Your task to perform on an android device: turn on sleep mode Image 0: 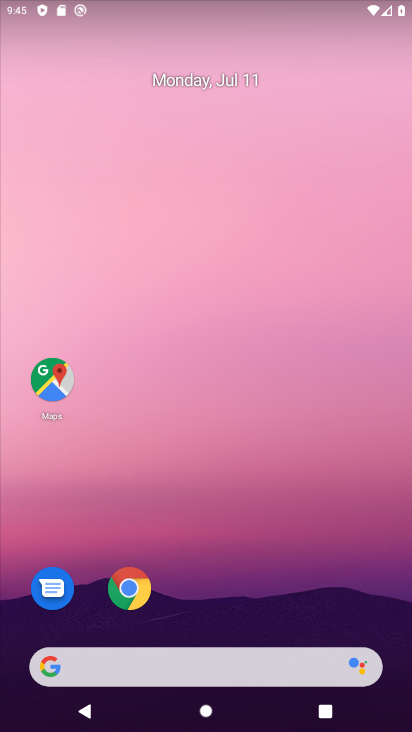
Step 0: drag from (230, 612) to (376, 468)
Your task to perform on an android device: turn on sleep mode Image 1: 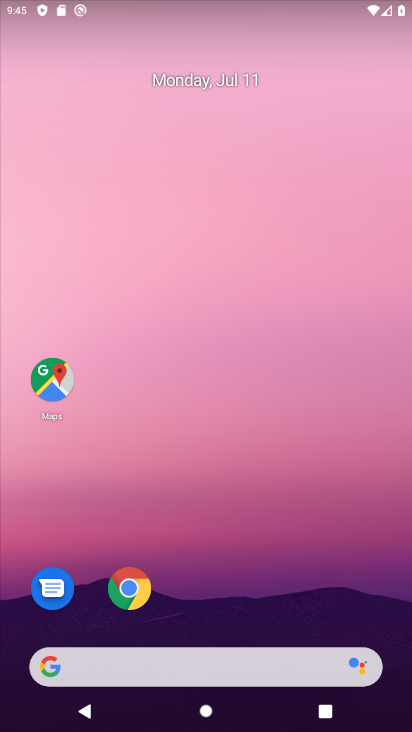
Step 1: drag from (185, 424) to (351, 7)
Your task to perform on an android device: turn on sleep mode Image 2: 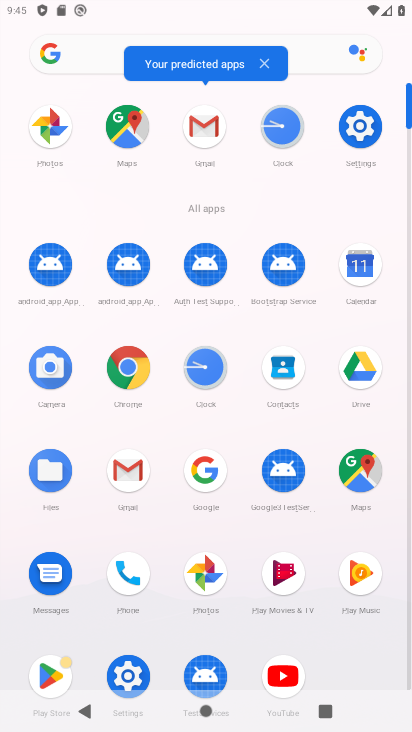
Step 2: click (363, 127)
Your task to perform on an android device: turn on sleep mode Image 3: 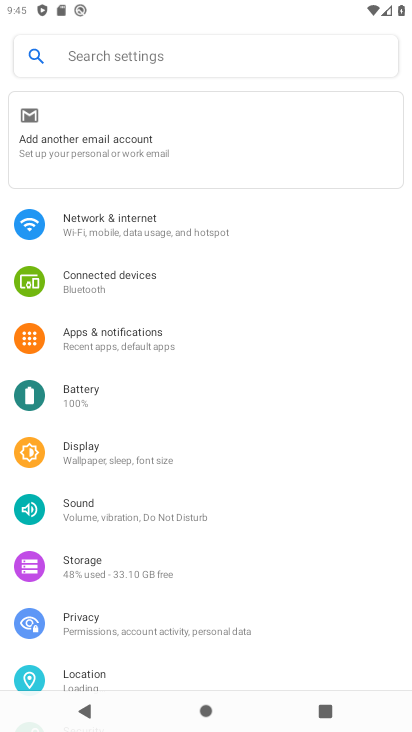
Step 3: click (189, 53)
Your task to perform on an android device: turn on sleep mode Image 4: 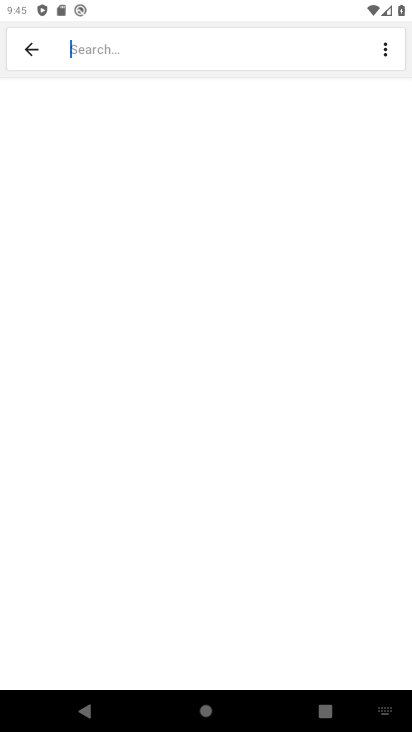
Step 4: type "sleep mode"
Your task to perform on an android device: turn on sleep mode Image 5: 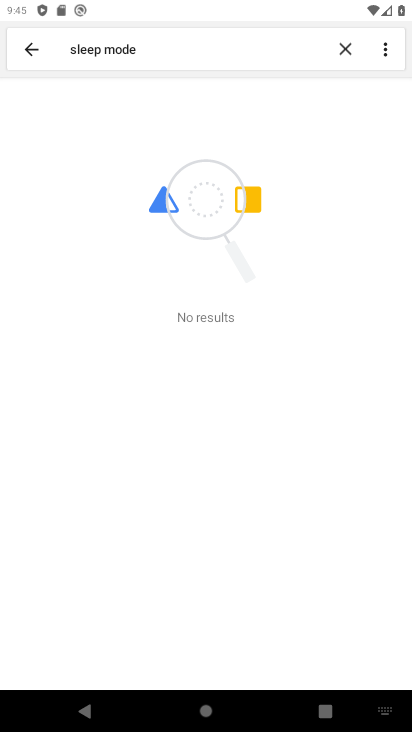
Step 5: task complete